Your task to perform on an android device: add a contact in the contacts app Image 0: 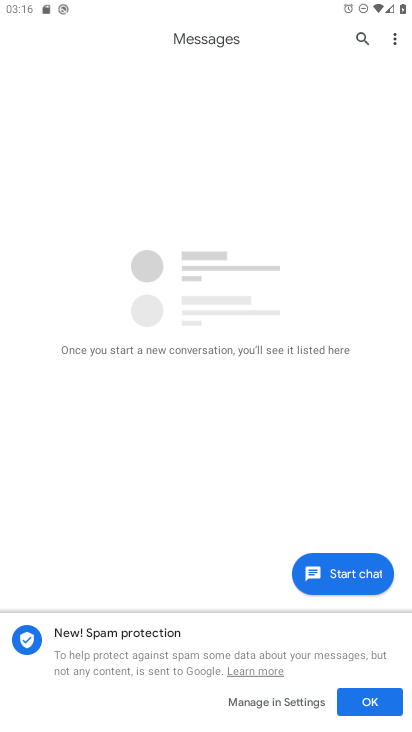
Step 0: press home button
Your task to perform on an android device: add a contact in the contacts app Image 1: 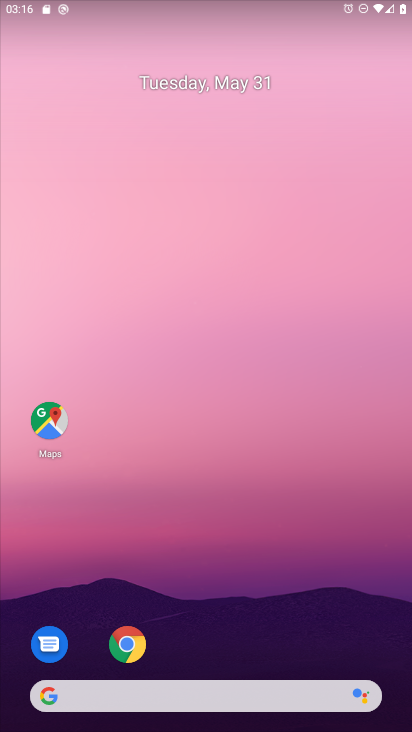
Step 1: drag from (260, 617) to (261, 68)
Your task to perform on an android device: add a contact in the contacts app Image 2: 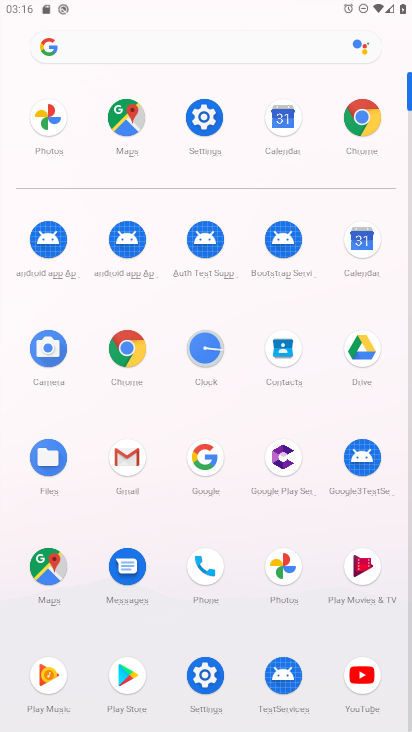
Step 2: click (282, 346)
Your task to perform on an android device: add a contact in the contacts app Image 3: 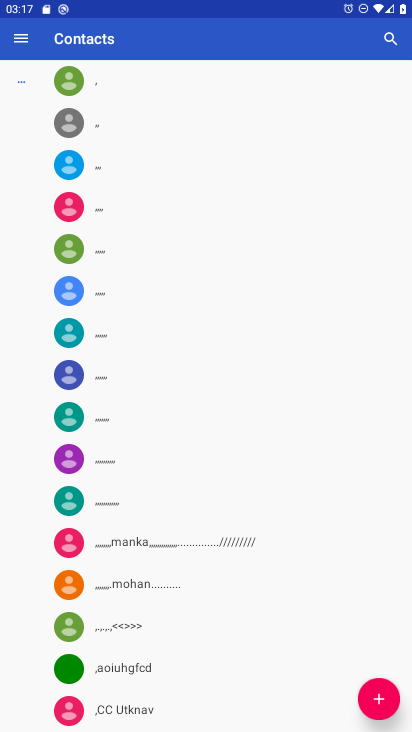
Step 3: click (369, 692)
Your task to perform on an android device: add a contact in the contacts app Image 4: 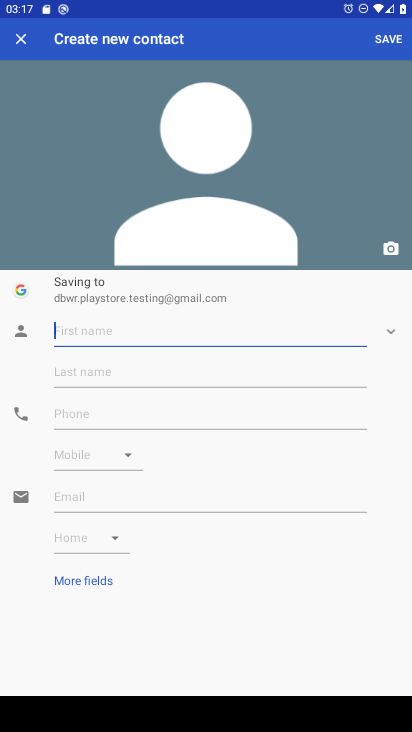
Step 4: click (169, 333)
Your task to perform on an android device: add a contact in the contacts app Image 5: 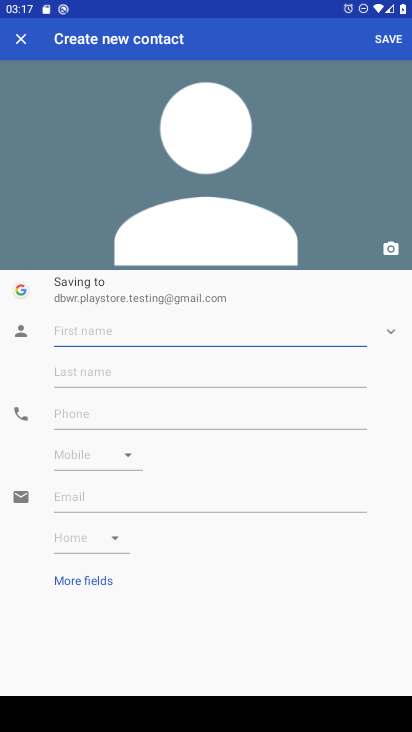
Step 5: type "message"
Your task to perform on an android device: add a contact in the contacts app Image 6: 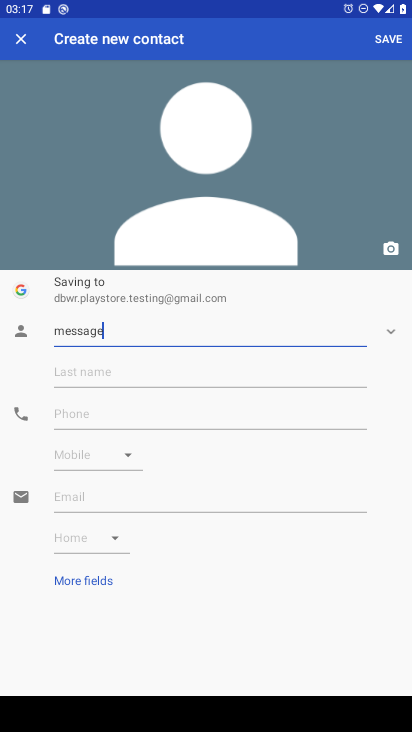
Step 6: type ""
Your task to perform on an android device: add a contact in the contacts app Image 7: 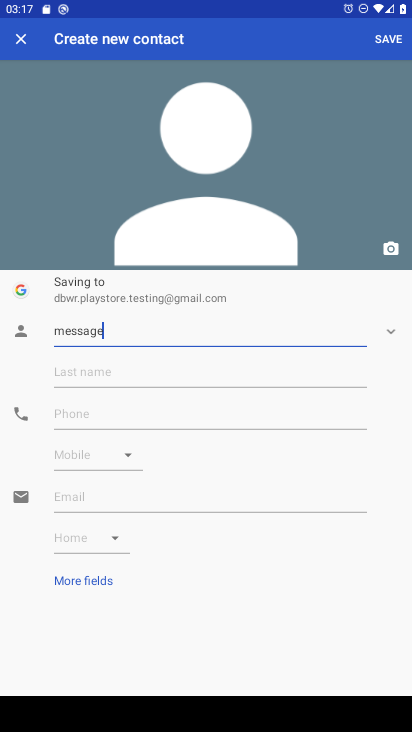
Step 7: click (385, 44)
Your task to perform on an android device: add a contact in the contacts app Image 8: 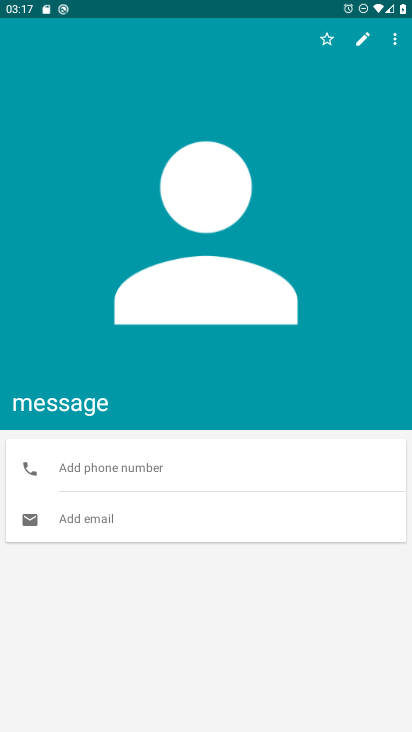
Step 8: task complete